Your task to perform on an android device: open chrome and create a bookmark for the current page Image 0: 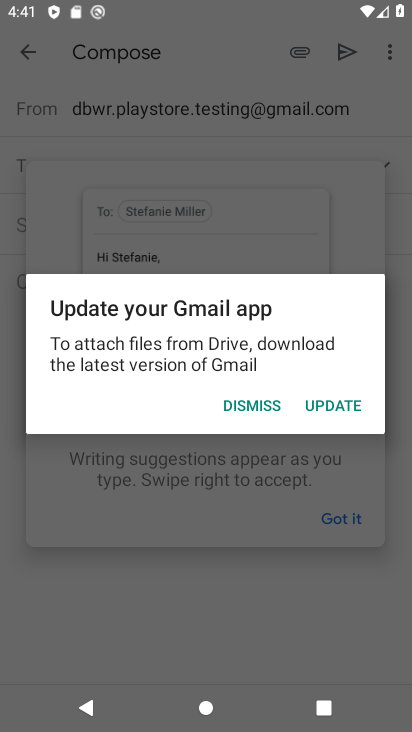
Step 0: press home button
Your task to perform on an android device: open chrome and create a bookmark for the current page Image 1: 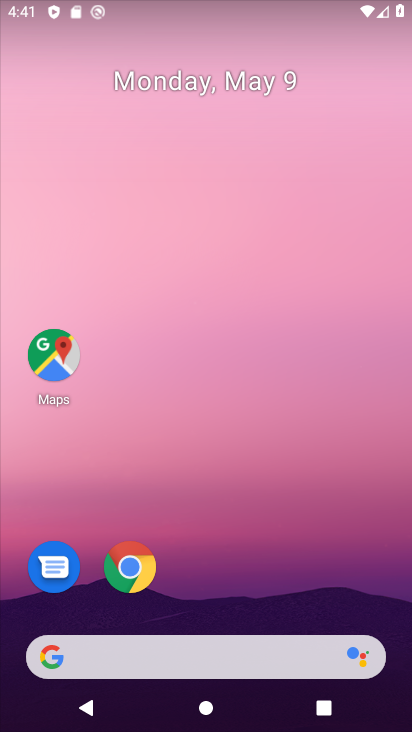
Step 1: drag from (272, 538) to (221, 116)
Your task to perform on an android device: open chrome and create a bookmark for the current page Image 2: 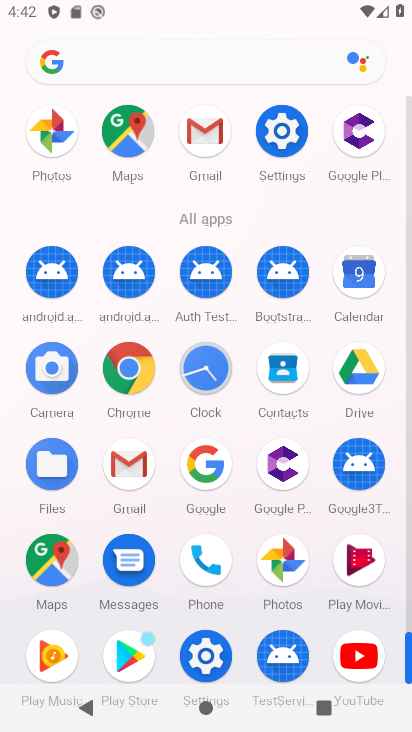
Step 2: click (133, 412)
Your task to perform on an android device: open chrome and create a bookmark for the current page Image 3: 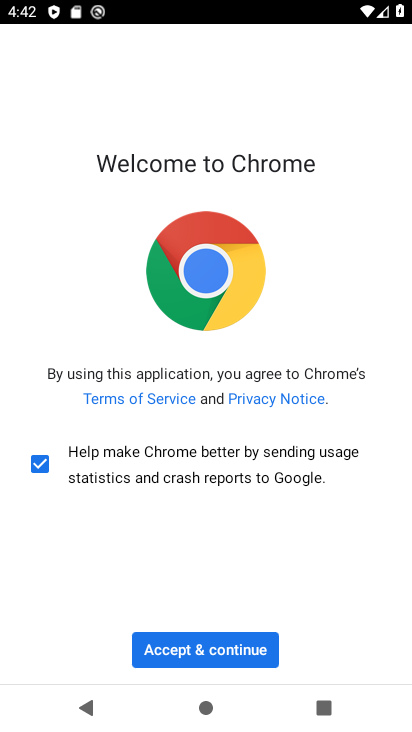
Step 3: click (211, 647)
Your task to perform on an android device: open chrome and create a bookmark for the current page Image 4: 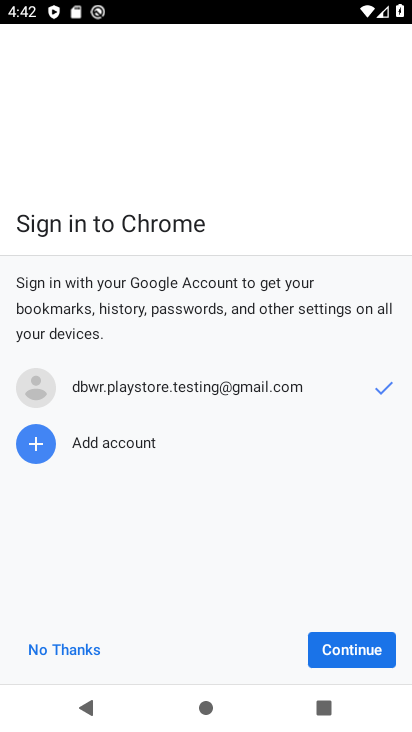
Step 4: click (380, 652)
Your task to perform on an android device: open chrome and create a bookmark for the current page Image 5: 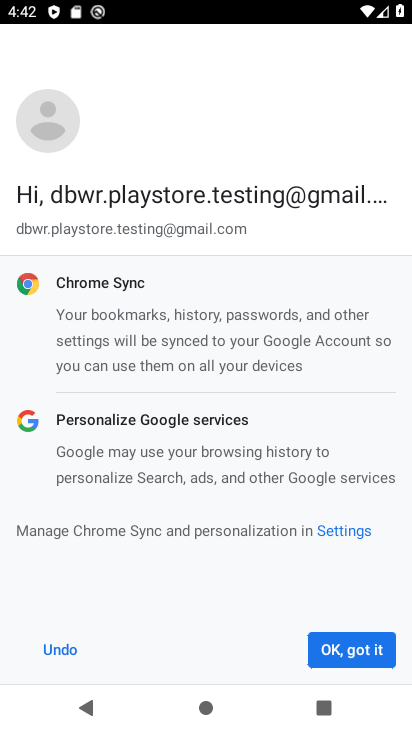
Step 5: click (380, 652)
Your task to perform on an android device: open chrome and create a bookmark for the current page Image 6: 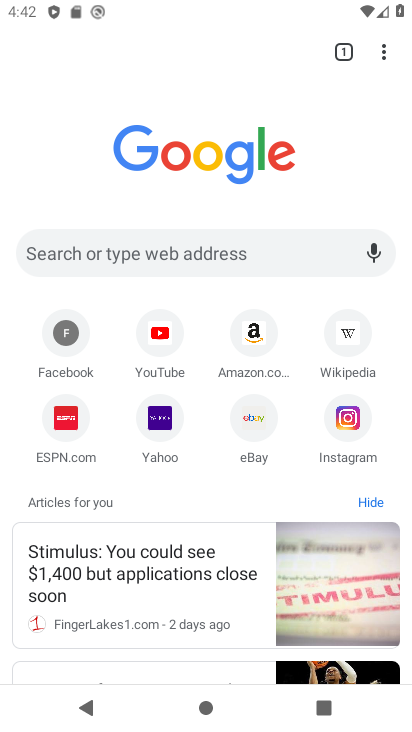
Step 6: click (389, 59)
Your task to perform on an android device: open chrome and create a bookmark for the current page Image 7: 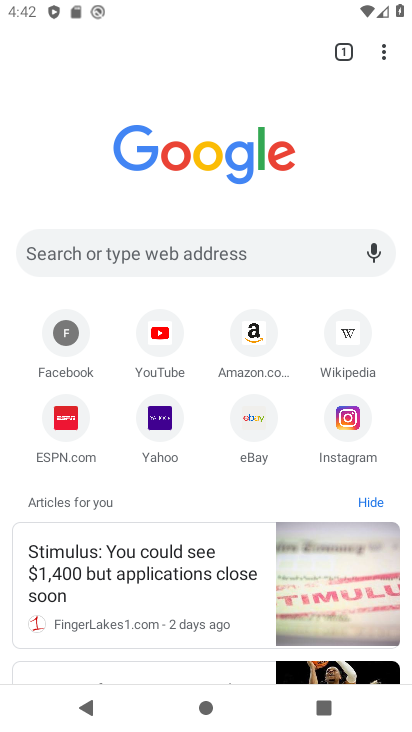
Step 7: click (385, 61)
Your task to perform on an android device: open chrome and create a bookmark for the current page Image 8: 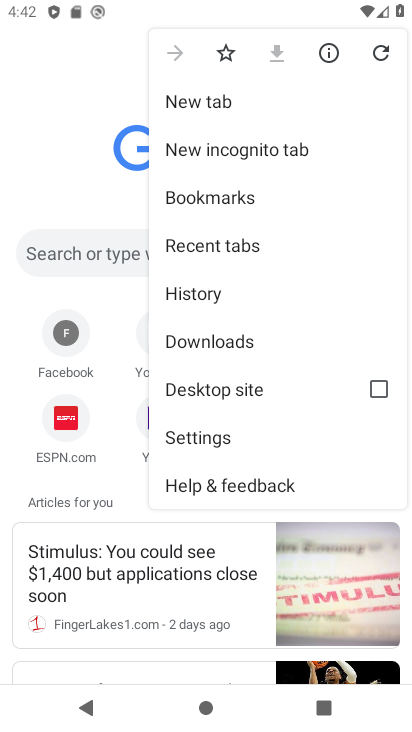
Step 8: click (229, 53)
Your task to perform on an android device: open chrome and create a bookmark for the current page Image 9: 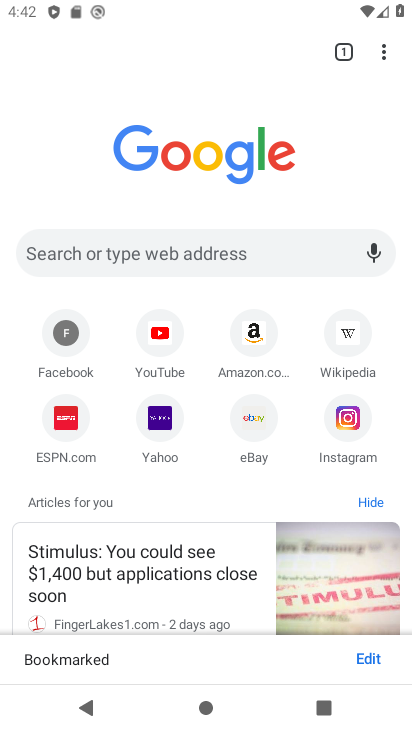
Step 9: task complete